Your task to perform on an android device: Open eBay Image 0: 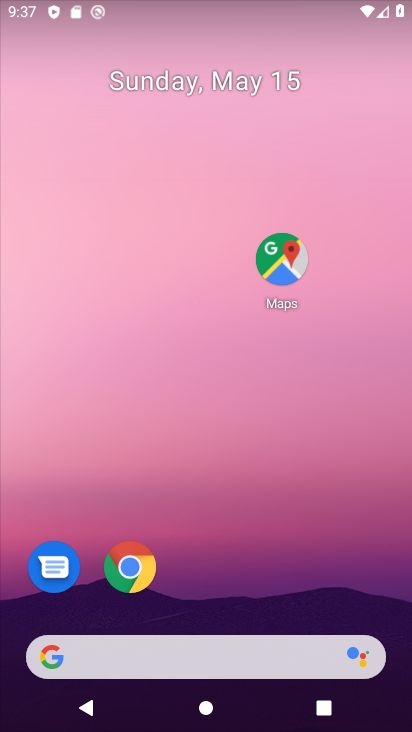
Step 0: drag from (214, 561) to (179, 98)
Your task to perform on an android device: Open eBay Image 1: 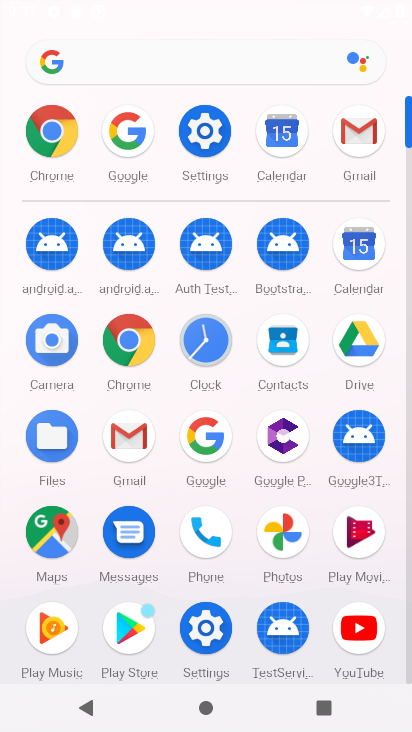
Step 1: click (122, 138)
Your task to perform on an android device: Open eBay Image 2: 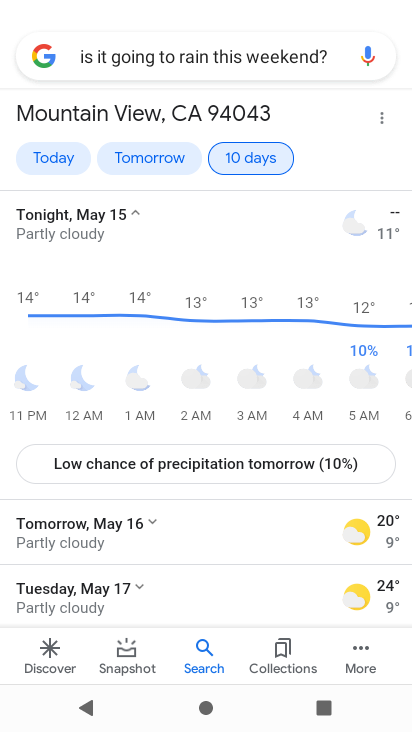
Step 2: click (309, 60)
Your task to perform on an android device: Open eBay Image 3: 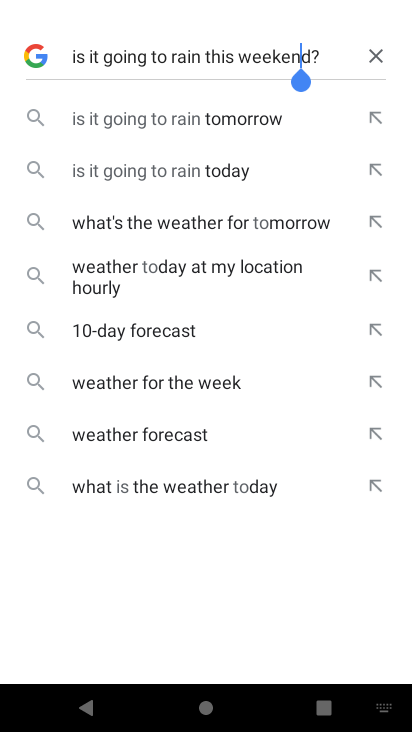
Step 3: click (373, 51)
Your task to perform on an android device: Open eBay Image 4: 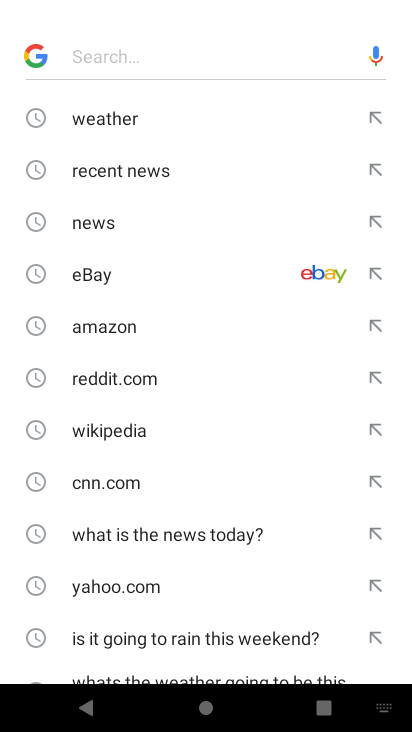
Step 4: click (146, 272)
Your task to perform on an android device: Open eBay Image 5: 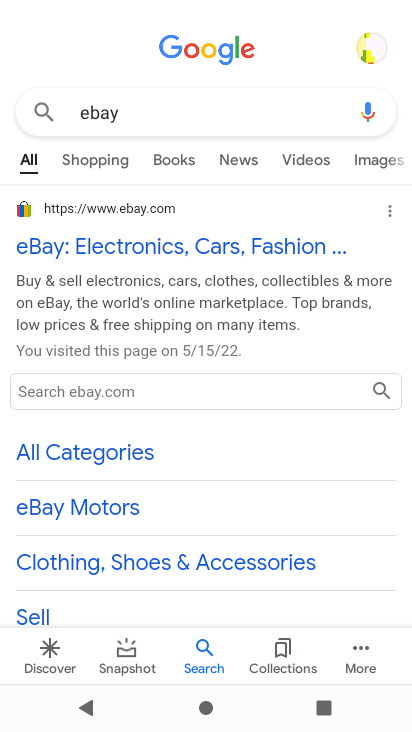
Step 5: task complete